Your task to perform on an android device: Go to Maps Image 0: 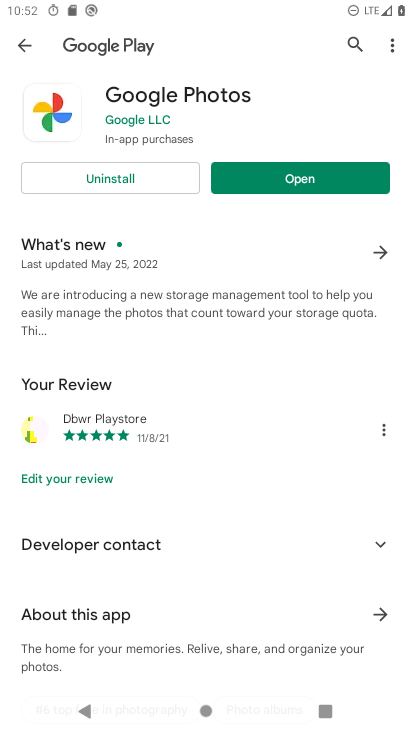
Step 0: press home button
Your task to perform on an android device: Go to Maps Image 1: 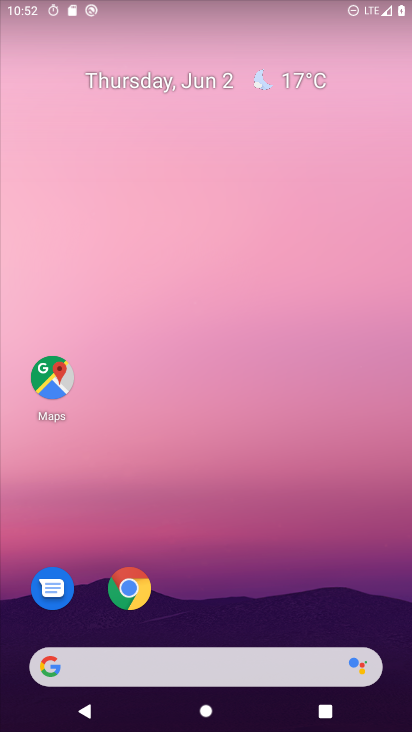
Step 1: drag from (233, 560) to (299, 222)
Your task to perform on an android device: Go to Maps Image 2: 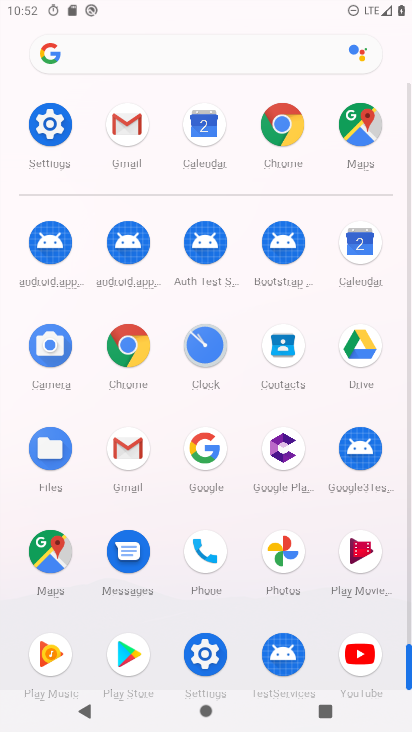
Step 2: click (377, 154)
Your task to perform on an android device: Go to Maps Image 3: 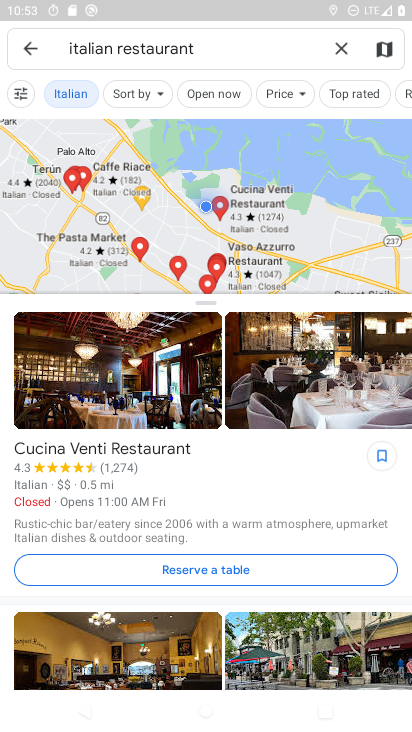
Step 3: task complete